Your task to perform on an android device: turn pop-ups on in chrome Image 0: 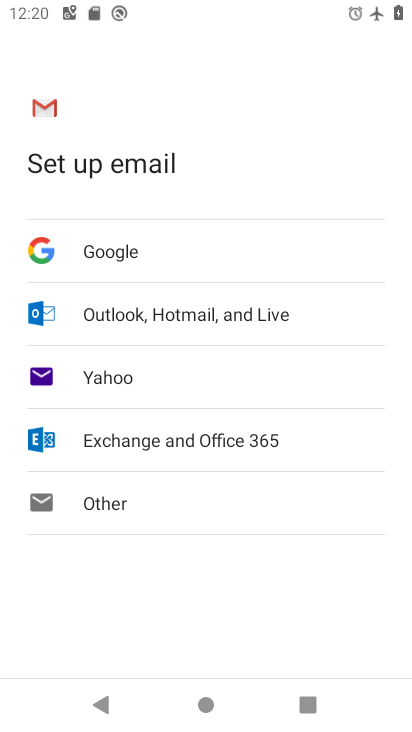
Step 0: press home button
Your task to perform on an android device: turn pop-ups on in chrome Image 1: 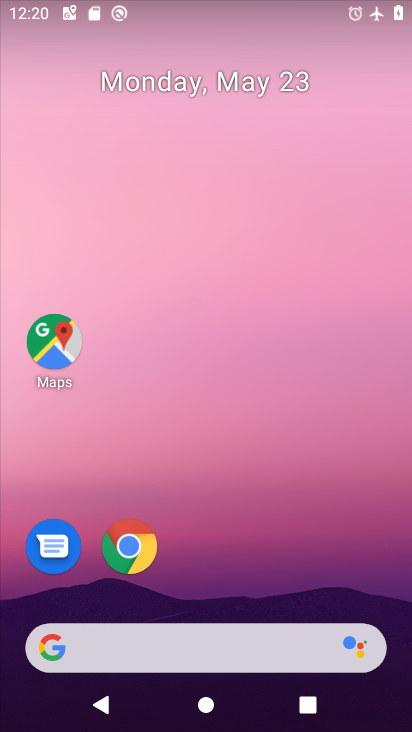
Step 1: click (141, 558)
Your task to perform on an android device: turn pop-ups on in chrome Image 2: 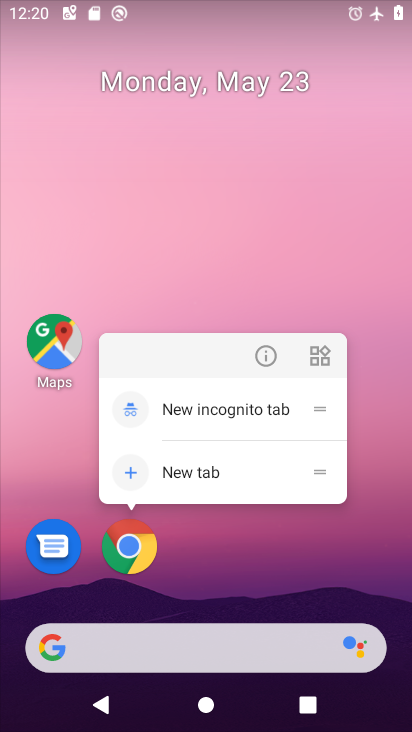
Step 2: click (125, 562)
Your task to perform on an android device: turn pop-ups on in chrome Image 3: 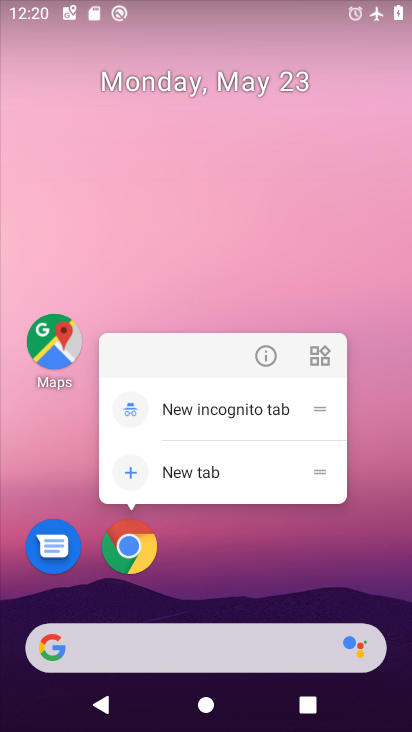
Step 3: click (125, 580)
Your task to perform on an android device: turn pop-ups on in chrome Image 4: 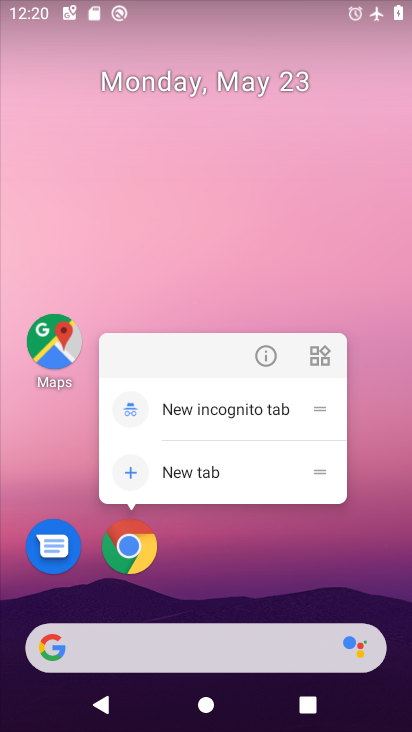
Step 4: click (131, 567)
Your task to perform on an android device: turn pop-ups on in chrome Image 5: 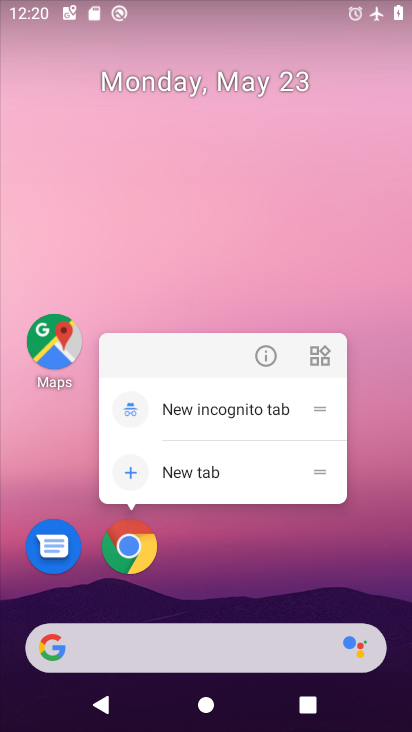
Step 5: click (144, 555)
Your task to perform on an android device: turn pop-ups on in chrome Image 6: 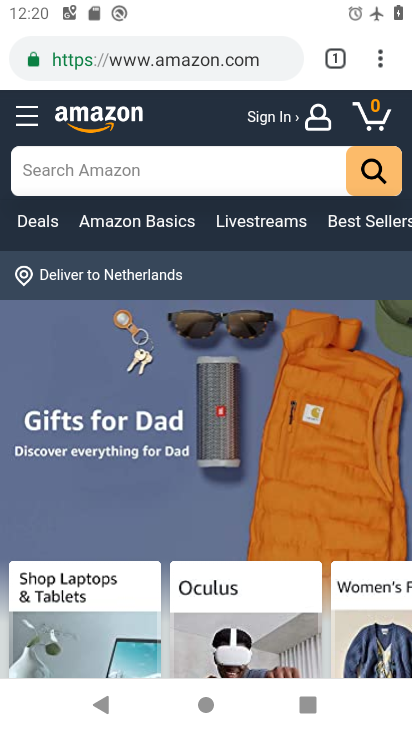
Step 6: click (384, 57)
Your task to perform on an android device: turn pop-ups on in chrome Image 7: 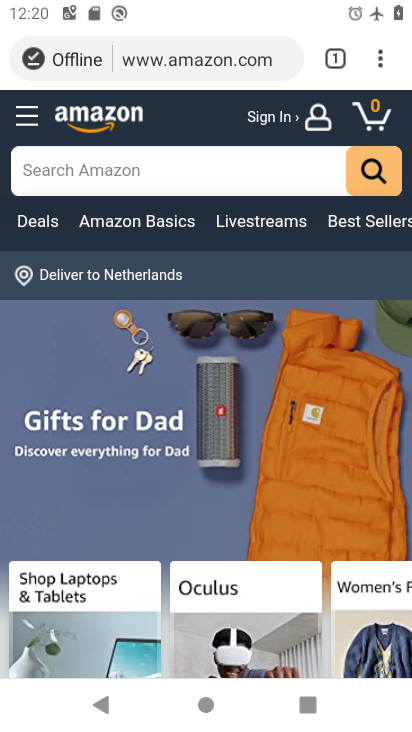
Step 7: click (370, 72)
Your task to perform on an android device: turn pop-ups on in chrome Image 8: 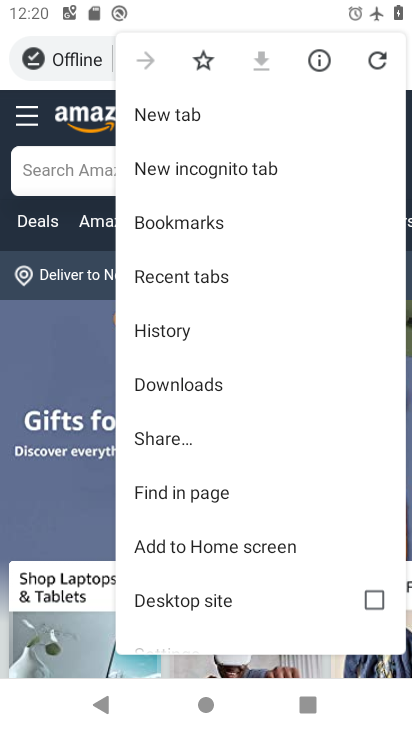
Step 8: drag from (336, 554) to (229, 284)
Your task to perform on an android device: turn pop-ups on in chrome Image 9: 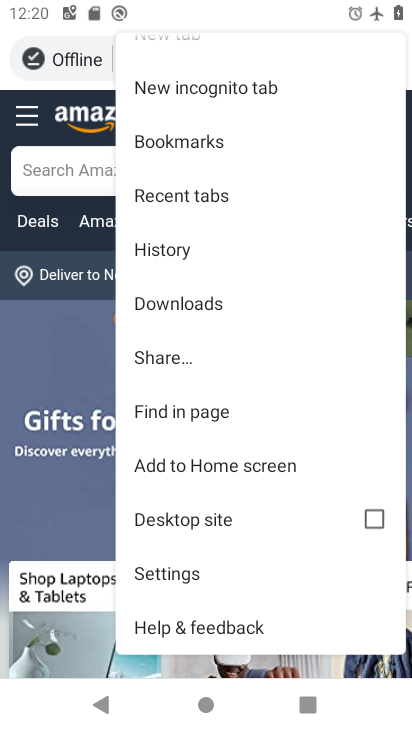
Step 9: click (235, 555)
Your task to perform on an android device: turn pop-ups on in chrome Image 10: 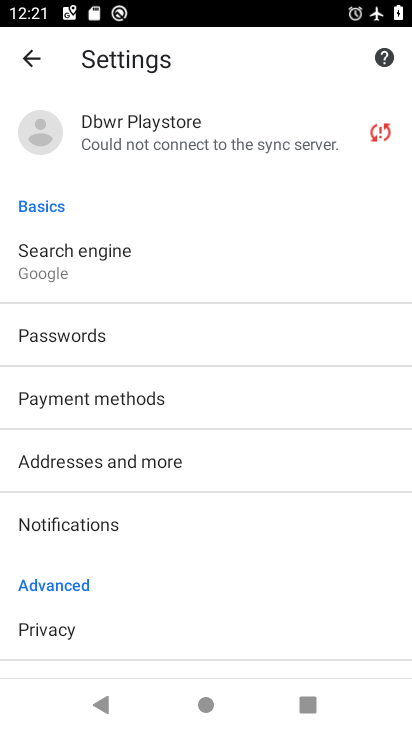
Step 10: drag from (228, 551) to (232, 38)
Your task to perform on an android device: turn pop-ups on in chrome Image 11: 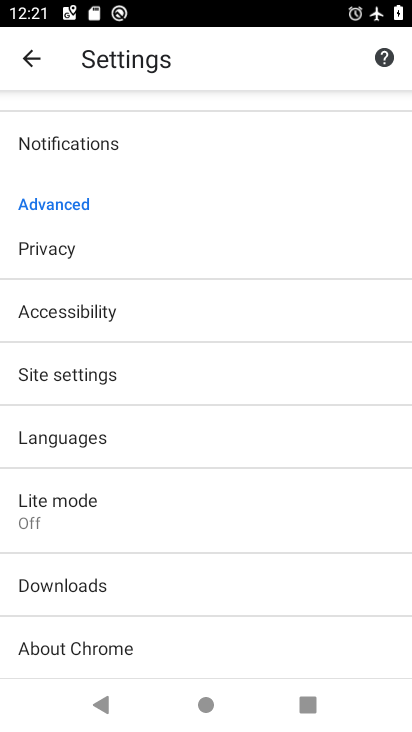
Step 11: click (118, 374)
Your task to perform on an android device: turn pop-ups on in chrome Image 12: 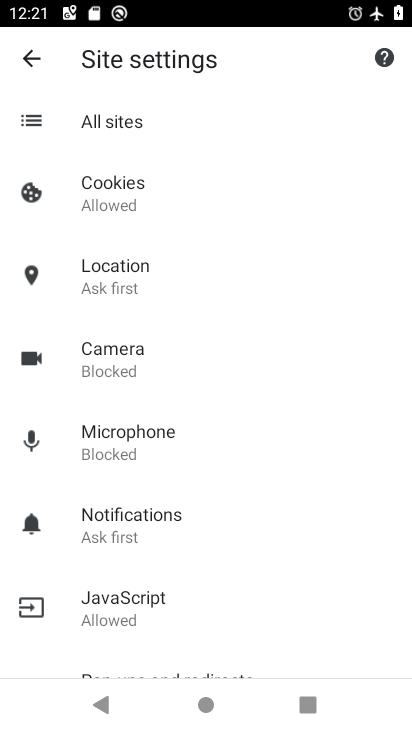
Step 12: drag from (179, 547) to (315, 55)
Your task to perform on an android device: turn pop-ups on in chrome Image 13: 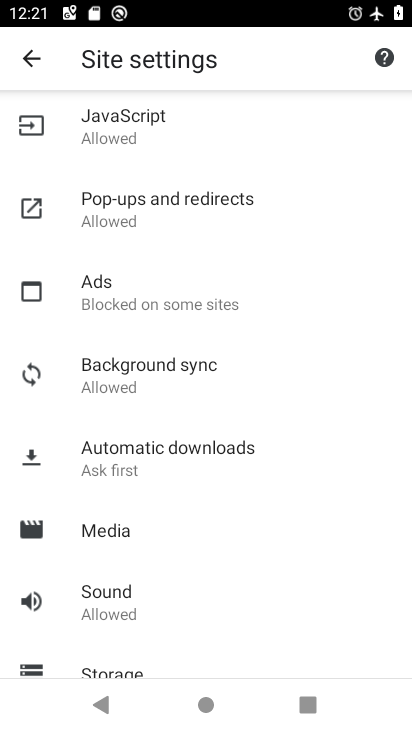
Step 13: click (256, 230)
Your task to perform on an android device: turn pop-ups on in chrome Image 14: 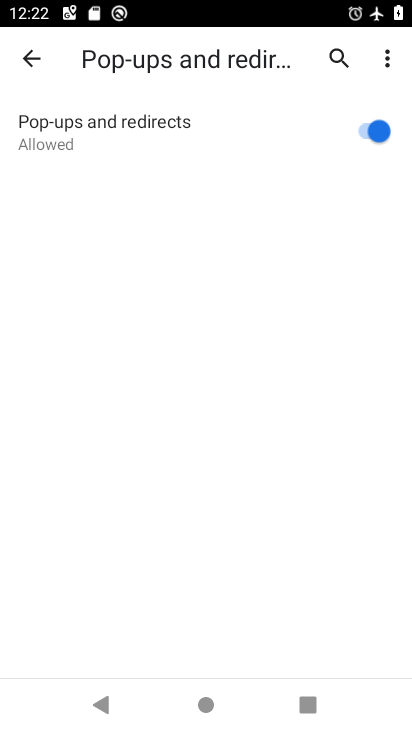
Step 14: task complete